Your task to perform on an android device: See recent photos Image 0: 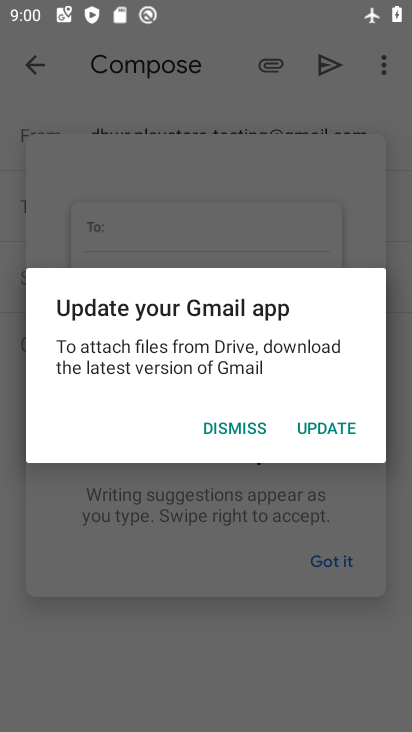
Step 0: press home button
Your task to perform on an android device: See recent photos Image 1: 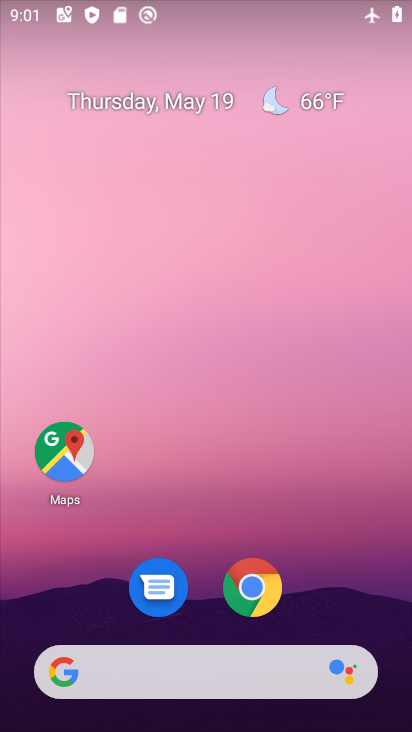
Step 1: drag from (274, 698) to (206, 200)
Your task to perform on an android device: See recent photos Image 2: 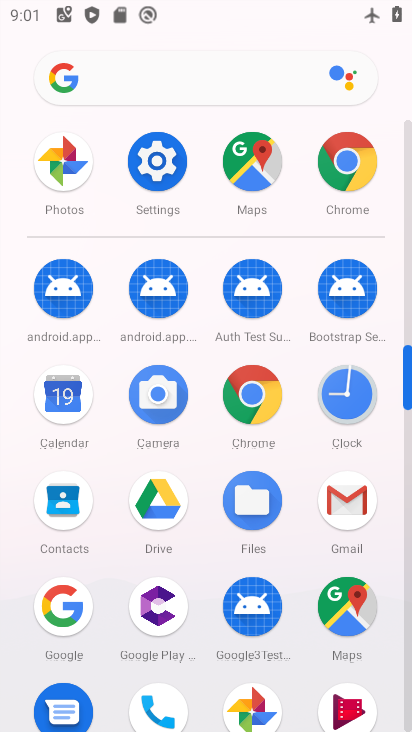
Step 2: click (252, 696)
Your task to perform on an android device: See recent photos Image 3: 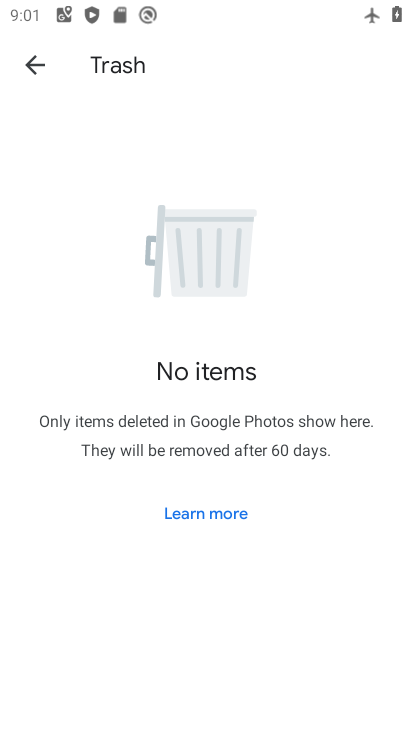
Step 3: click (31, 75)
Your task to perform on an android device: See recent photos Image 4: 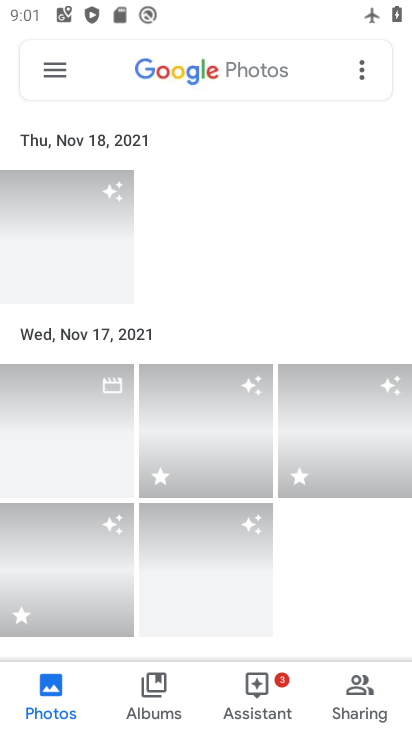
Step 4: task complete